Your task to perform on an android device: Open Google Chrome and open the bookmarks view Image 0: 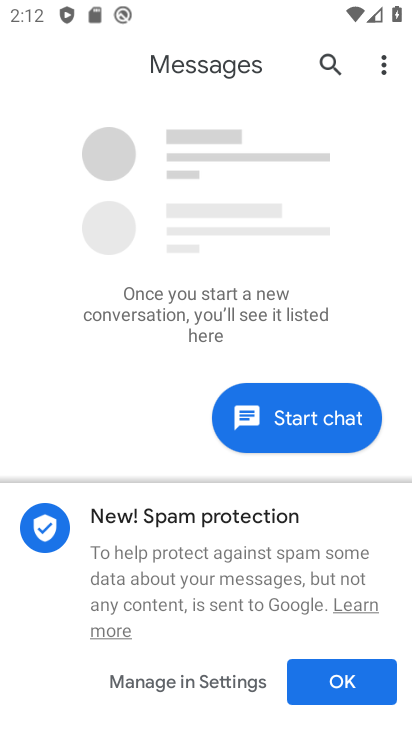
Step 0: press home button
Your task to perform on an android device: Open Google Chrome and open the bookmarks view Image 1: 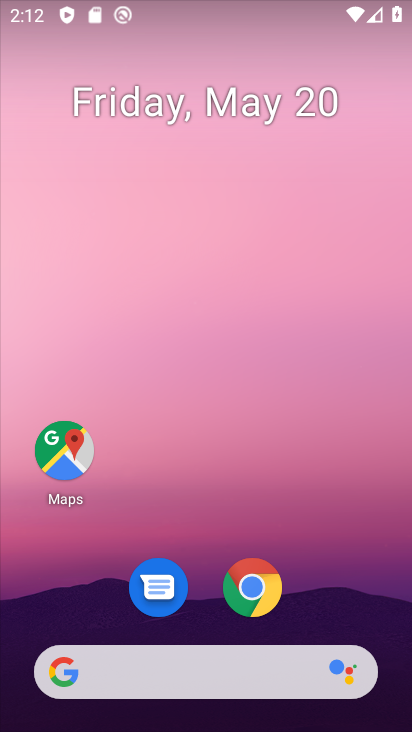
Step 1: drag from (369, 594) to (357, 153)
Your task to perform on an android device: Open Google Chrome and open the bookmarks view Image 2: 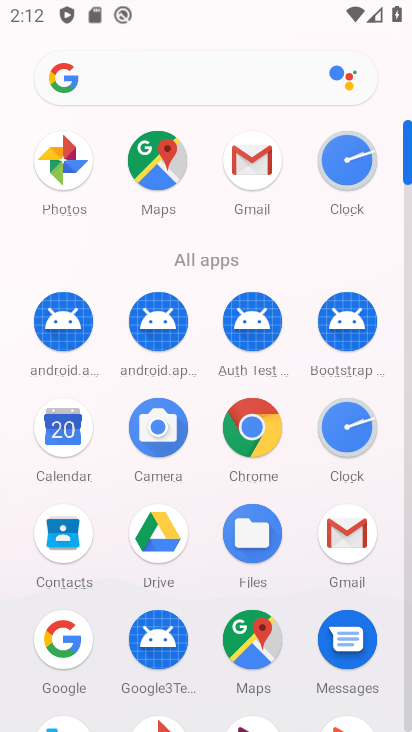
Step 2: click (259, 433)
Your task to perform on an android device: Open Google Chrome and open the bookmarks view Image 3: 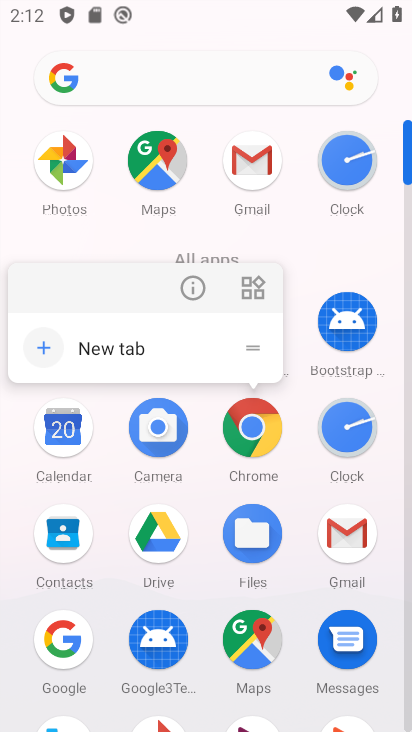
Step 3: click (259, 433)
Your task to perform on an android device: Open Google Chrome and open the bookmarks view Image 4: 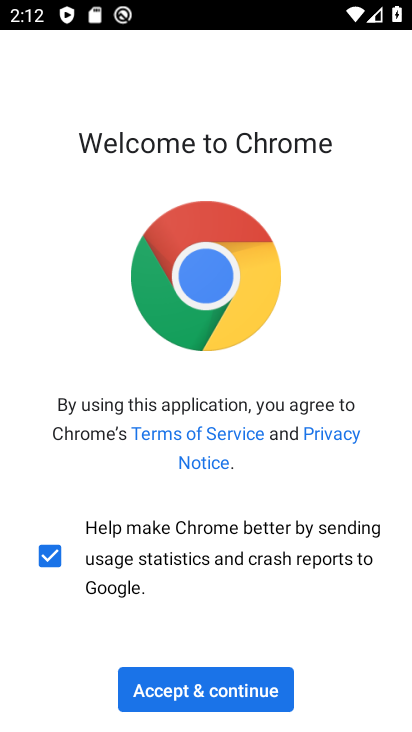
Step 4: click (267, 701)
Your task to perform on an android device: Open Google Chrome and open the bookmarks view Image 5: 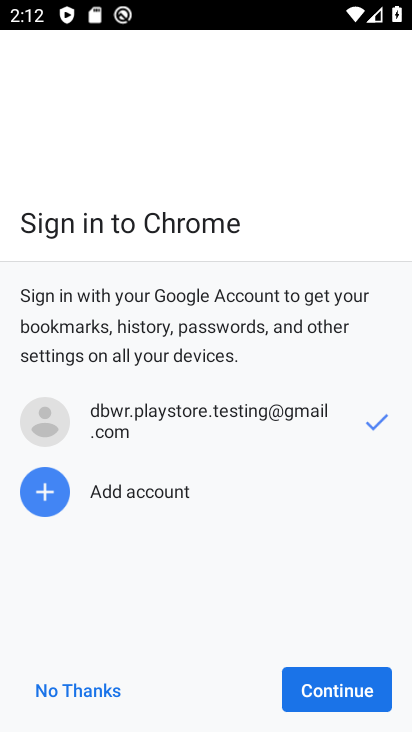
Step 5: click (338, 700)
Your task to perform on an android device: Open Google Chrome and open the bookmarks view Image 6: 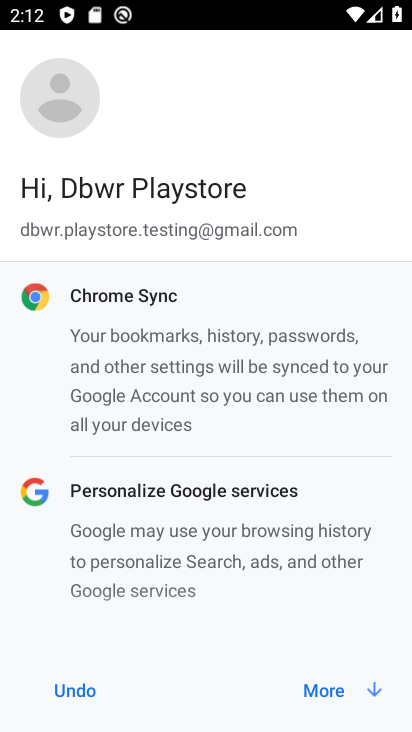
Step 6: click (338, 700)
Your task to perform on an android device: Open Google Chrome and open the bookmarks view Image 7: 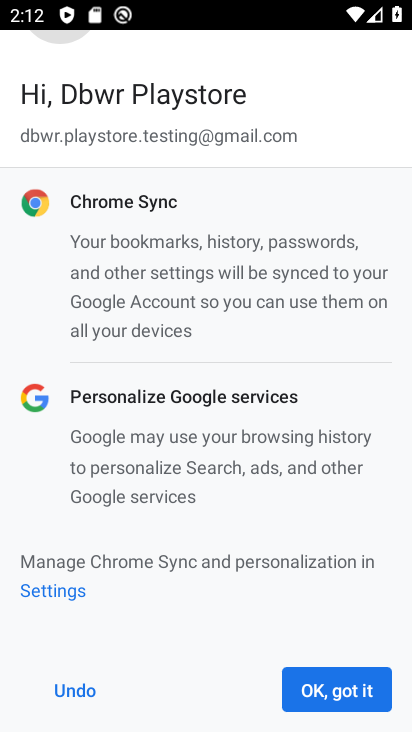
Step 7: click (338, 700)
Your task to perform on an android device: Open Google Chrome and open the bookmarks view Image 8: 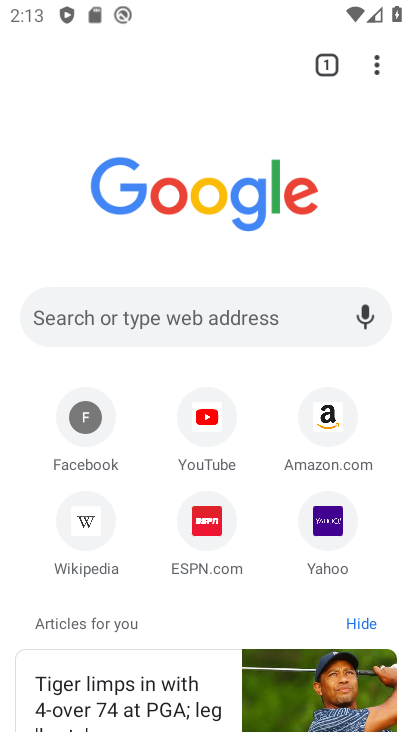
Step 8: click (374, 75)
Your task to perform on an android device: Open Google Chrome and open the bookmarks view Image 9: 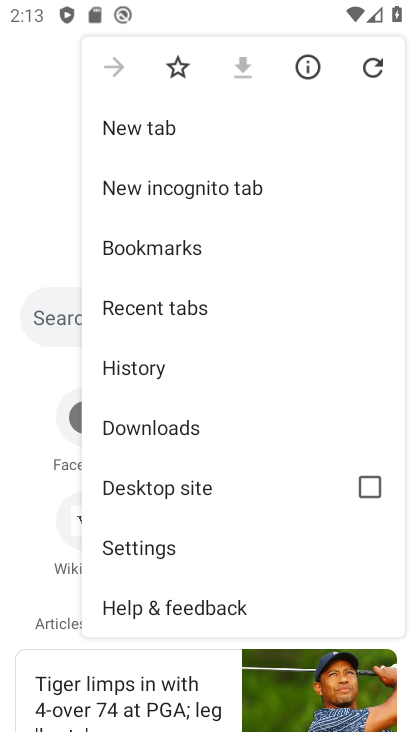
Step 9: click (247, 257)
Your task to perform on an android device: Open Google Chrome and open the bookmarks view Image 10: 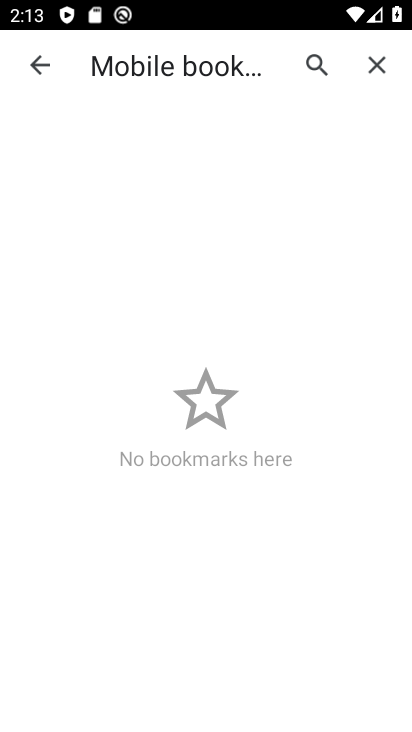
Step 10: task complete